Your task to perform on an android device: Open the map Image 0: 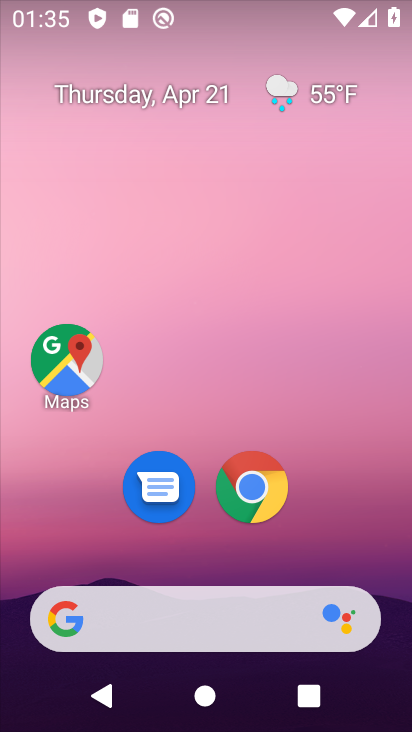
Step 0: drag from (324, 545) to (356, 98)
Your task to perform on an android device: Open the map Image 1: 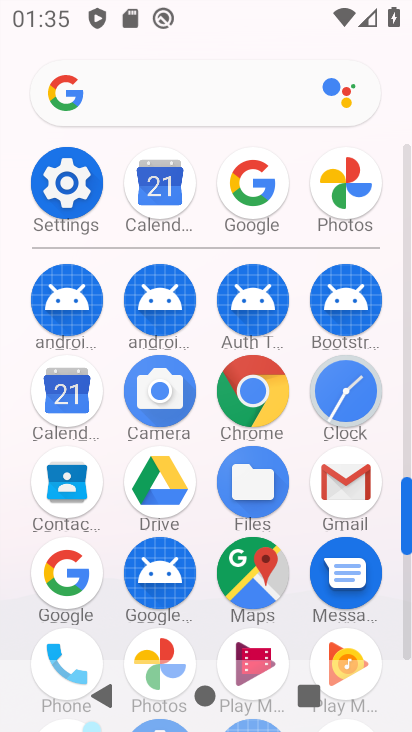
Step 1: click (263, 554)
Your task to perform on an android device: Open the map Image 2: 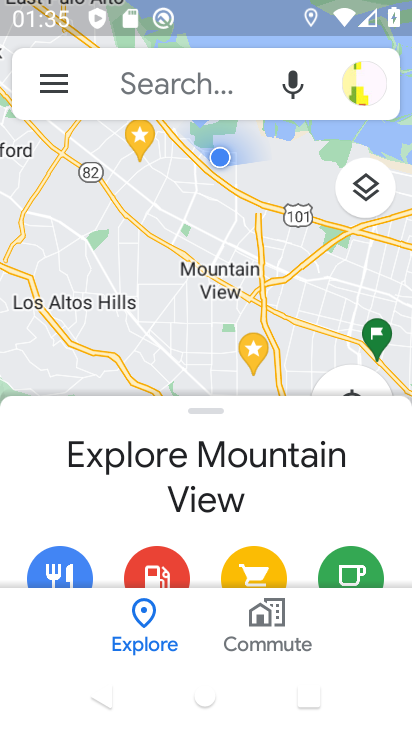
Step 2: task complete